Your task to perform on an android device: change notifications settings Image 0: 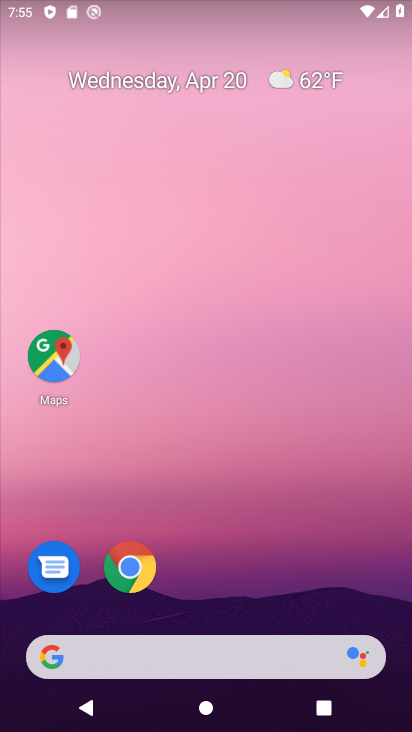
Step 0: drag from (229, 635) to (174, 50)
Your task to perform on an android device: change notifications settings Image 1: 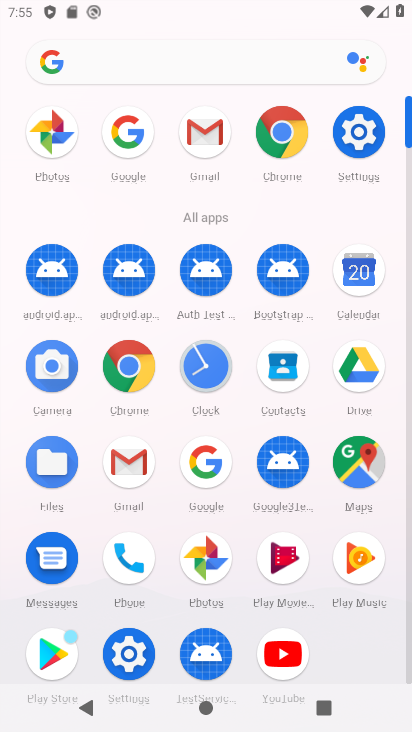
Step 1: click (139, 658)
Your task to perform on an android device: change notifications settings Image 2: 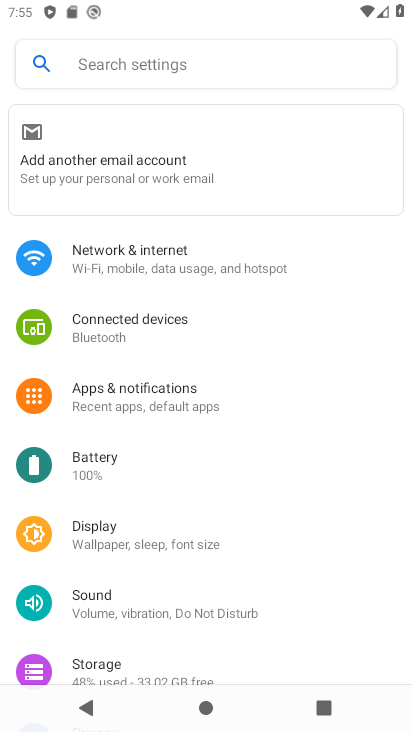
Step 2: click (138, 601)
Your task to perform on an android device: change notifications settings Image 3: 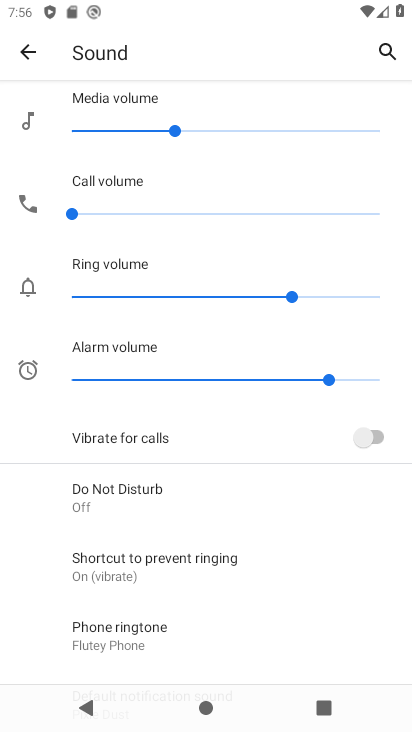
Step 3: click (372, 439)
Your task to perform on an android device: change notifications settings Image 4: 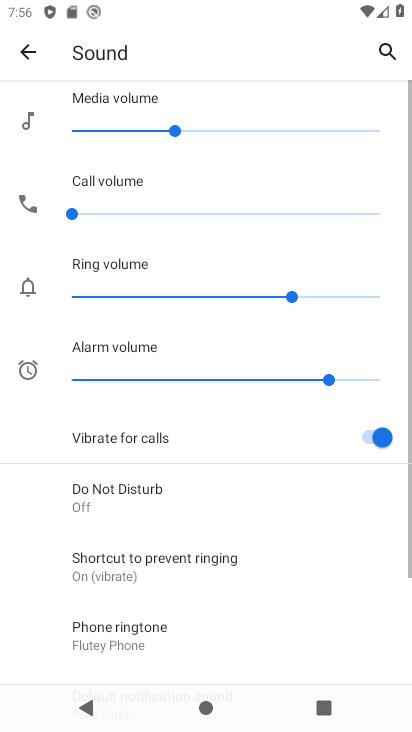
Step 4: task complete